Your task to perform on an android device: Add jbl charge 4 to the cart on amazon, then select checkout. Image 0: 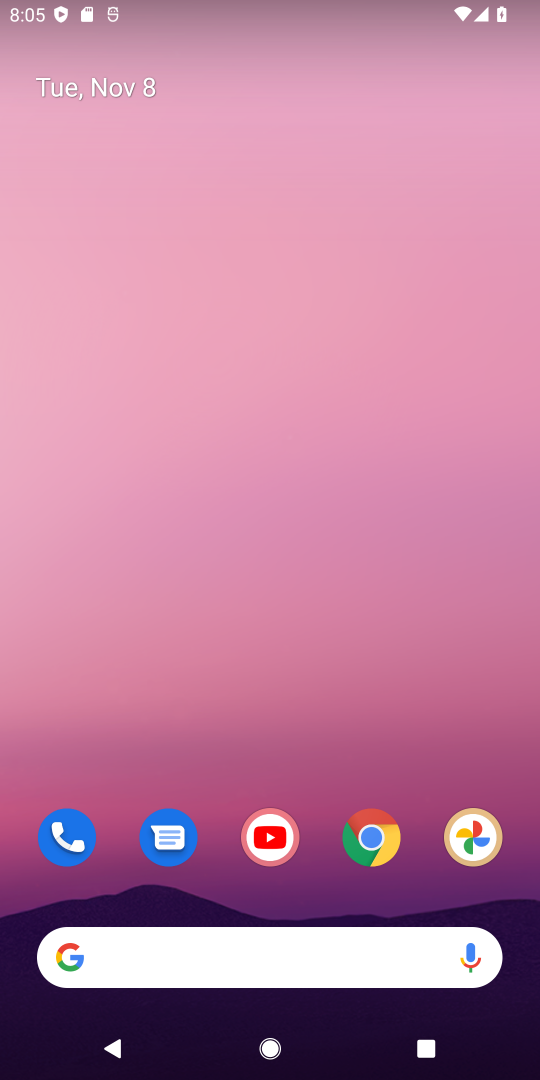
Step 0: click (372, 825)
Your task to perform on an android device: Add jbl charge 4 to the cart on amazon, then select checkout. Image 1: 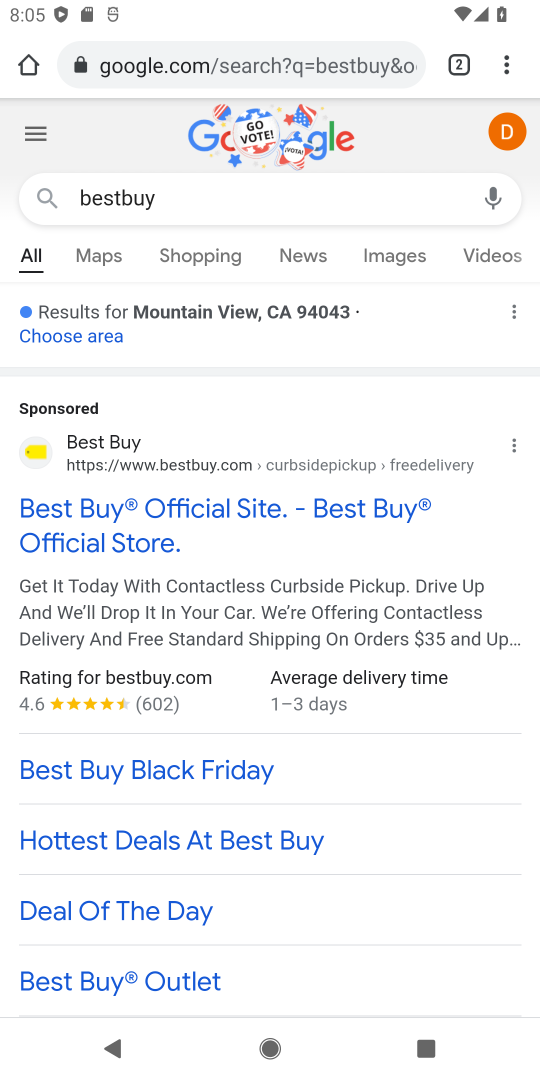
Step 1: click (92, 189)
Your task to perform on an android device: Add jbl charge 4 to the cart on amazon, then select checkout. Image 2: 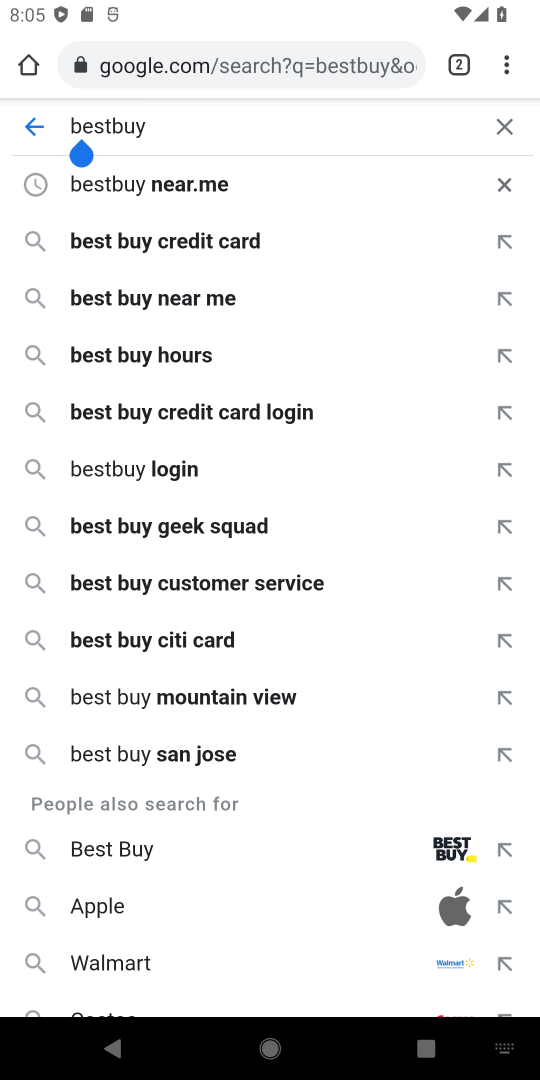
Step 2: click (503, 124)
Your task to perform on an android device: Add jbl charge 4 to the cart on amazon, then select checkout. Image 3: 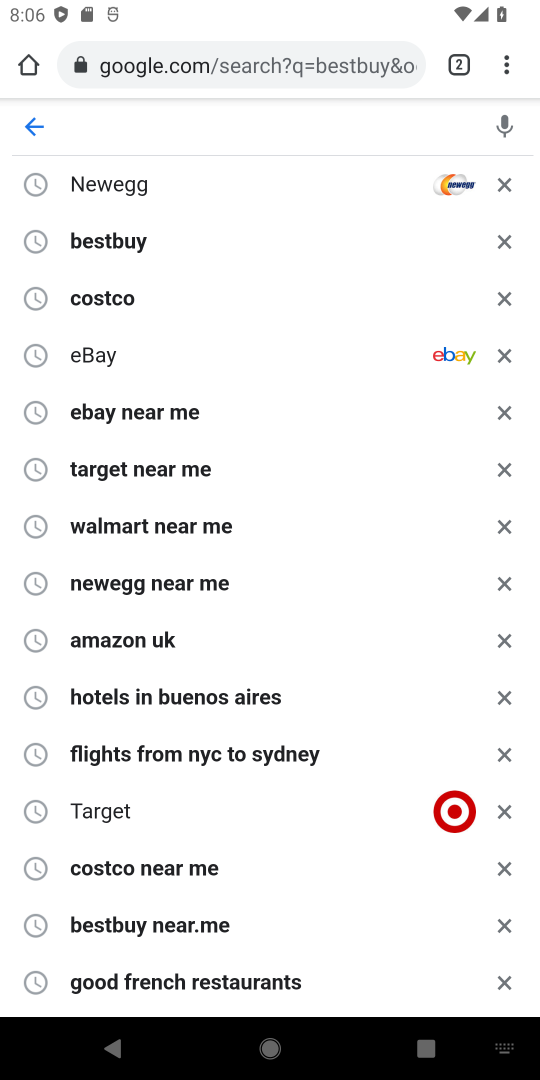
Step 3: type "amazon"
Your task to perform on an android device: Add jbl charge 4 to the cart on amazon, then select checkout. Image 4: 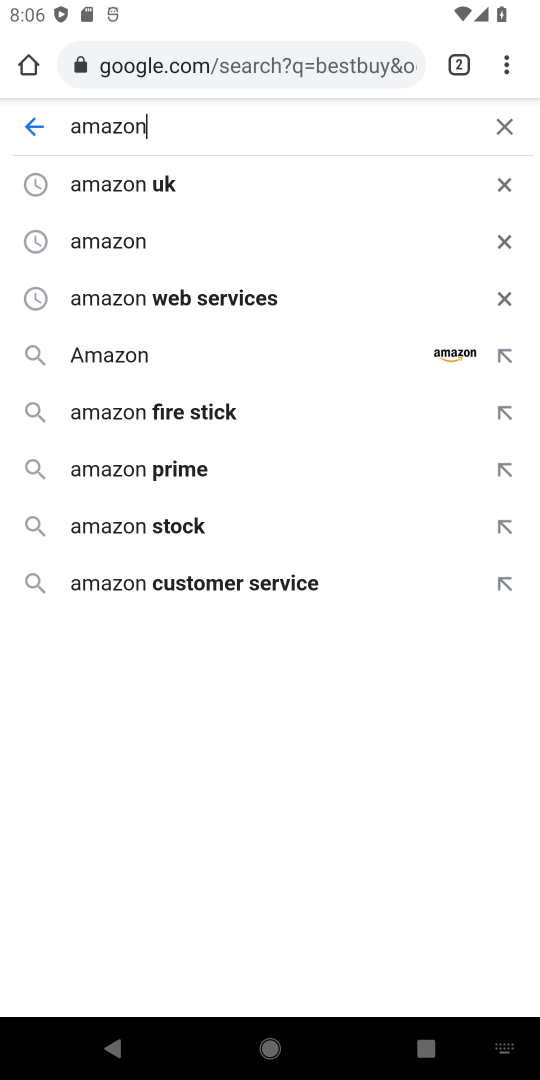
Step 4: click (101, 343)
Your task to perform on an android device: Add jbl charge 4 to the cart on amazon, then select checkout. Image 5: 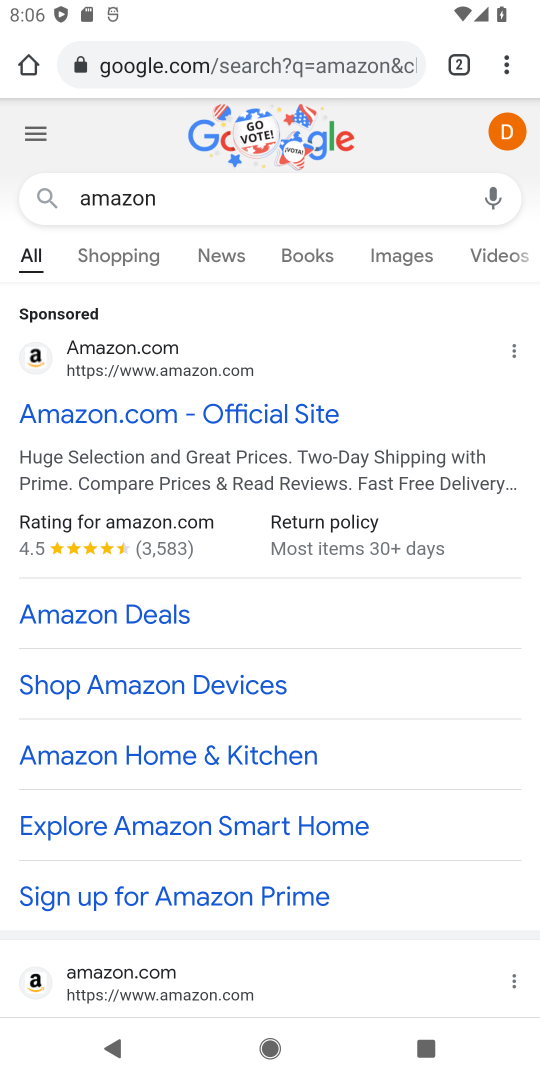
Step 5: click (122, 970)
Your task to perform on an android device: Add jbl charge 4 to the cart on amazon, then select checkout. Image 6: 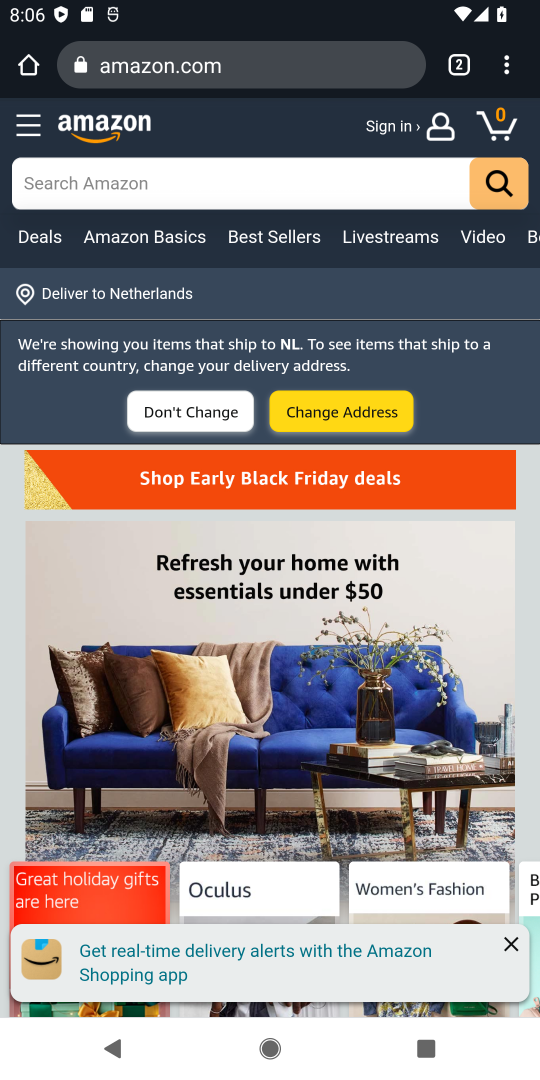
Step 6: click (60, 172)
Your task to perform on an android device: Add jbl charge 4 to the cart on amazon, then select checkout. Image 7: 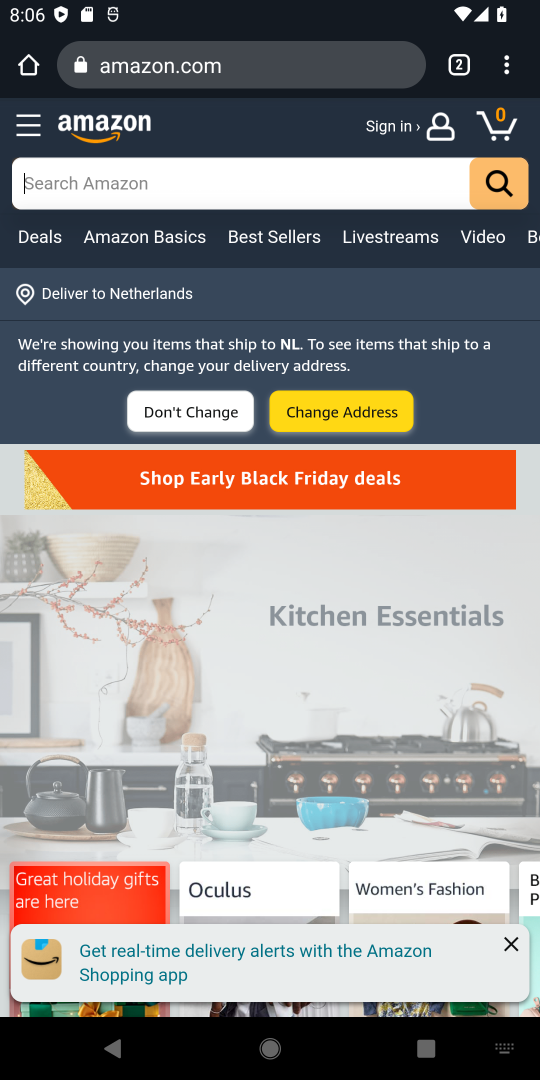
Step 7: type " jbl charge 4"
Your task to perform on an android device: Add jbl charge 4 to the cart on amazon, then select checkout. Image 8: 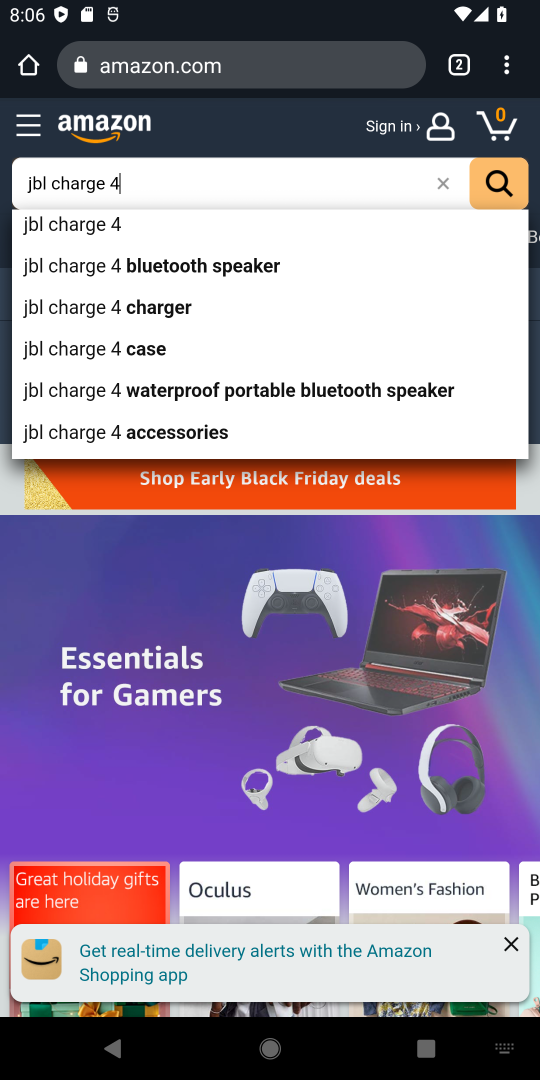
Step 8: click (78, 227)
Your task to perform on an android device: Add jbl charge 4 to the cart on amazon, then select checkout. Image 9: 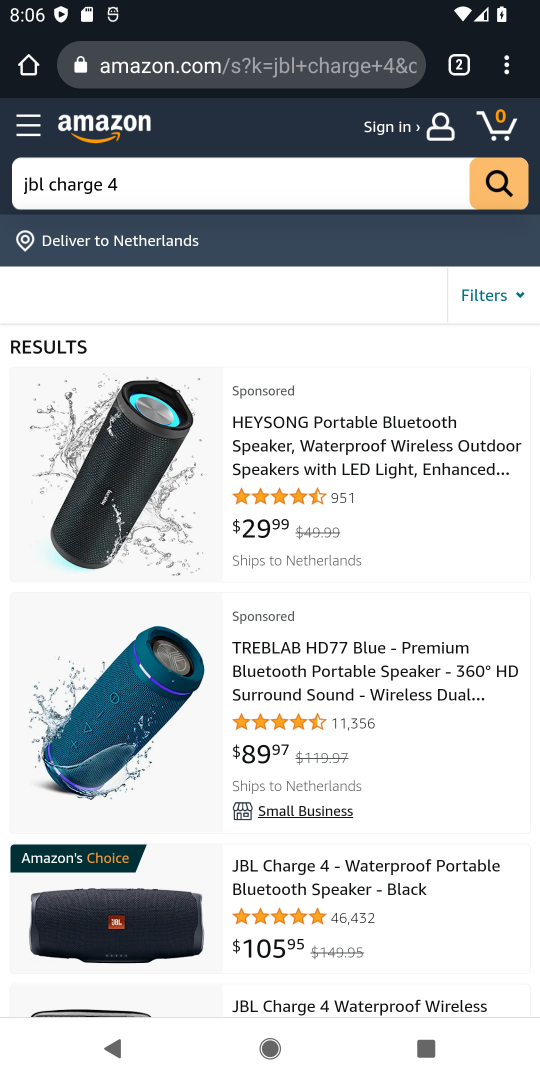
Step 9: click (344, 887)
Your task to perform on an android device: Add jbl charge 4 to the cart on amazon, then select checkout. Image 10: 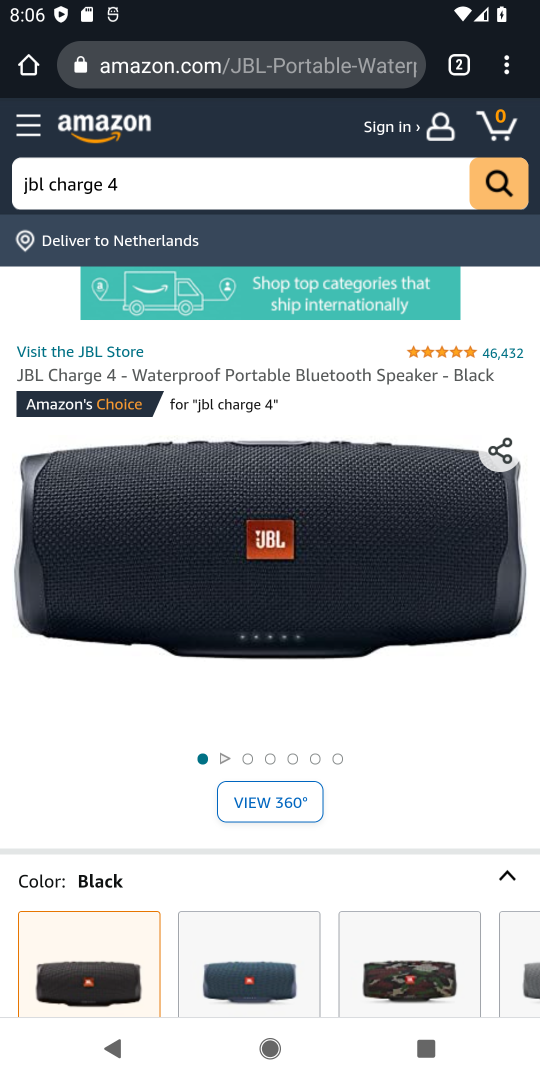
Step 10: drag from (261, 965) to (361, 525)
Your task to perform on an android device: Add jbl charge 4 to the cart on amazon, then select checkout. Image 11: 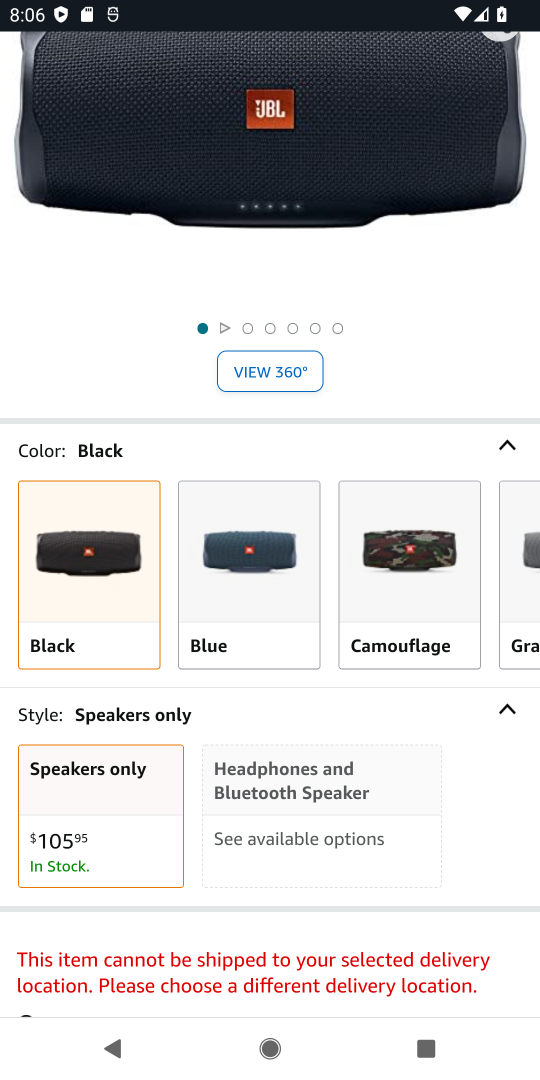
Step 11: drag from (248, 736) to (304, 267)
Your task to perform on an android device: Add jbl charge 4 to the cart on amazon, then select checkout. Image 12: 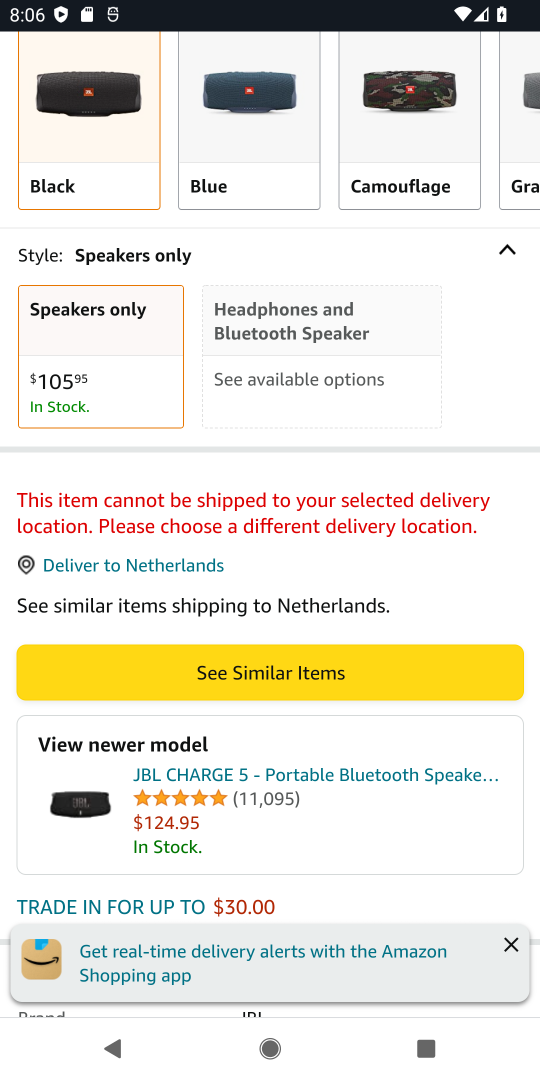
Step 12: click (282, 674)
Your task to perform on an android device: Add jbl charge 4 to the cart on amazon, then select checkout. Image 13: 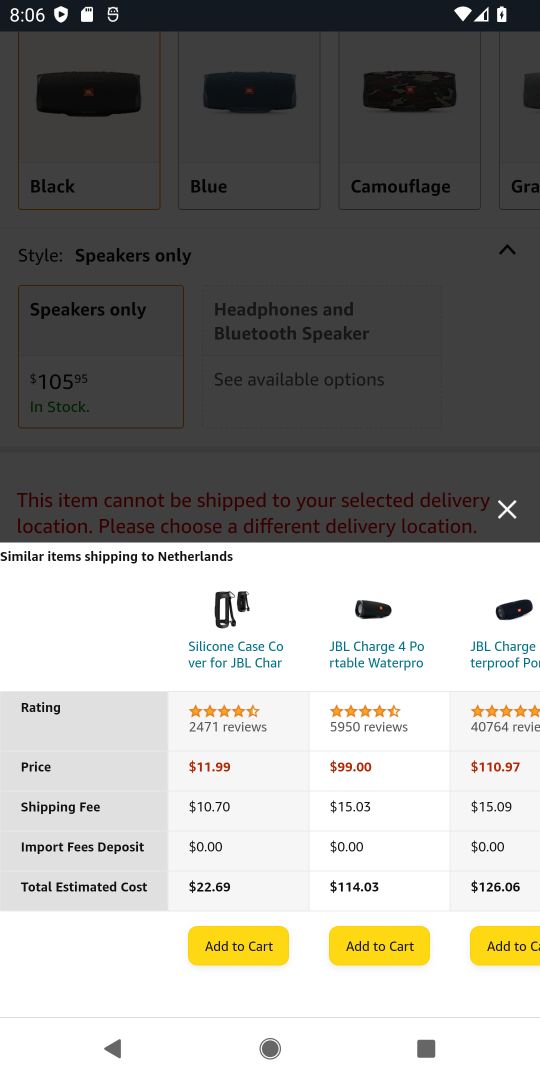
Step 13: click (251, 941)
Your task to perform on an android device: Add jbl charge 4 to the cart on amazon, then select checkout. Image 14: 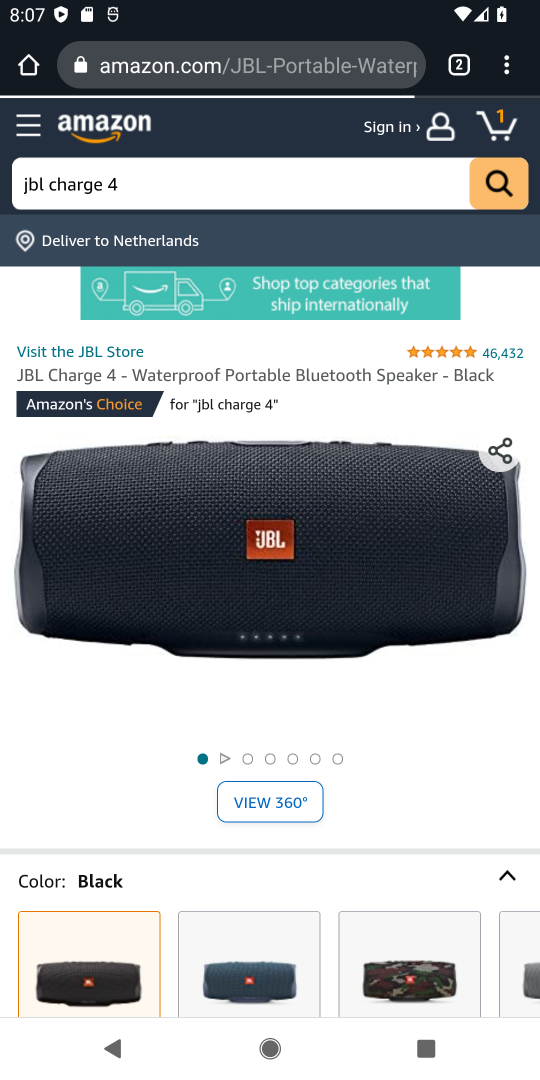
Step 14: click (500, 113)
Your task to perform on an android device: Add jbl charge 4 to the cart on amazon, then select checkout. Image 15: 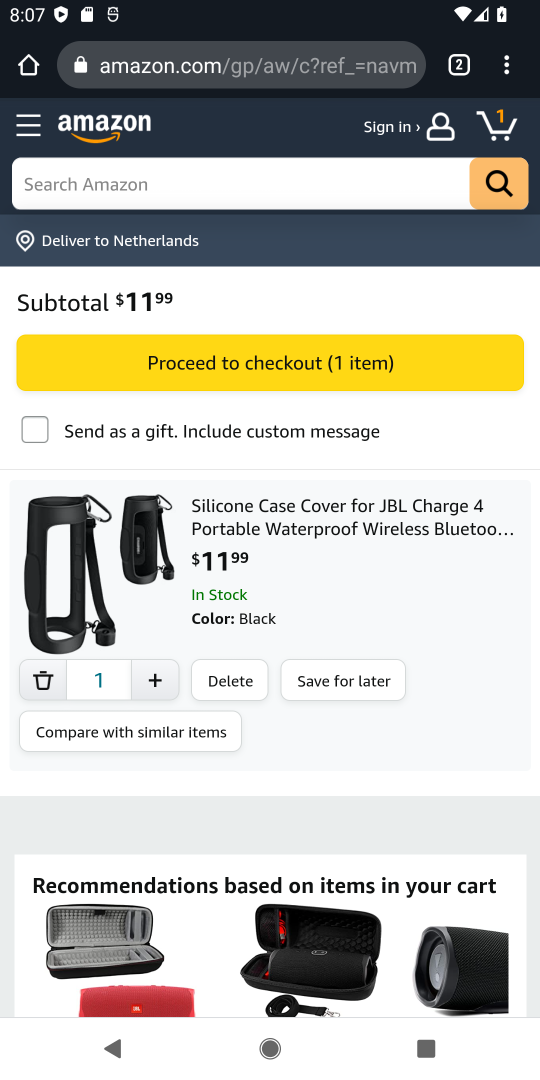
Step 15: click (298, 357)
Your task to perform on an android device: Add jbl charge 4 to the cart on amazon, then select checkout. Image 16: 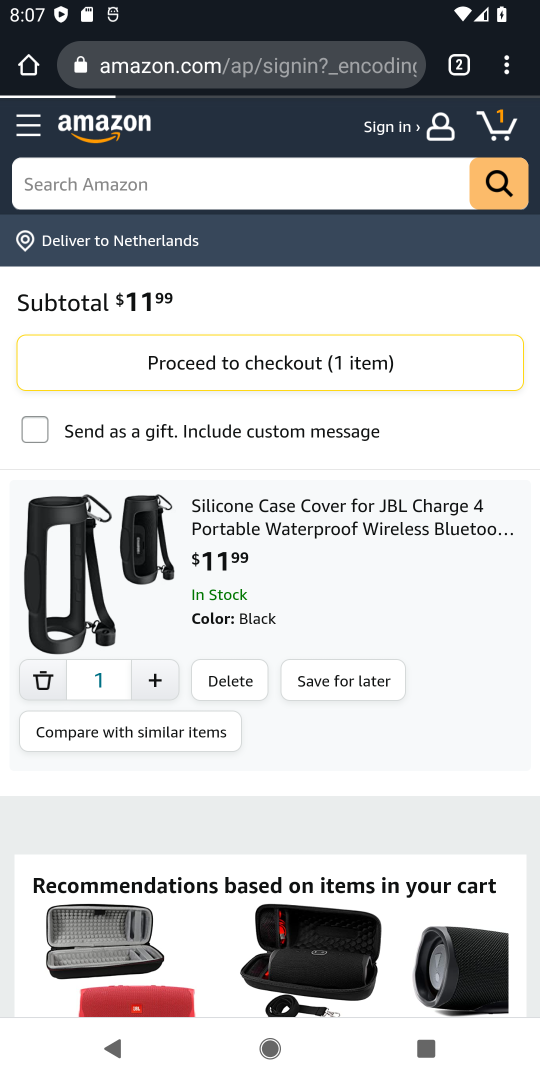
Step 16: task complete